Your task to perform on an android device: change the clock display to show seconds Image 0: 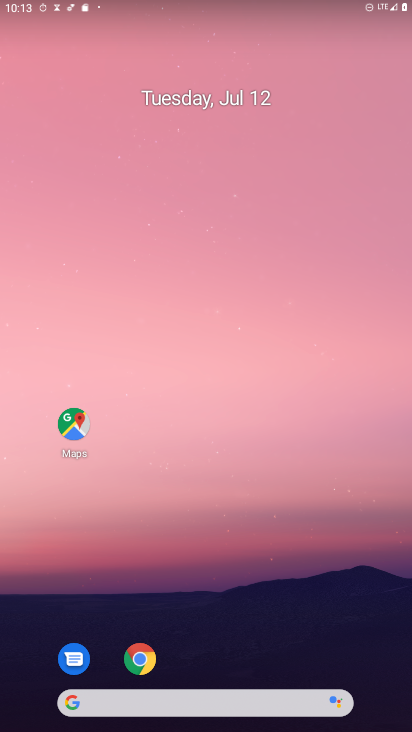
Step 0: drag from (194, 696) to (266, 67)
Your task to perform on an android device: change the clock display to show seconds Image 1: 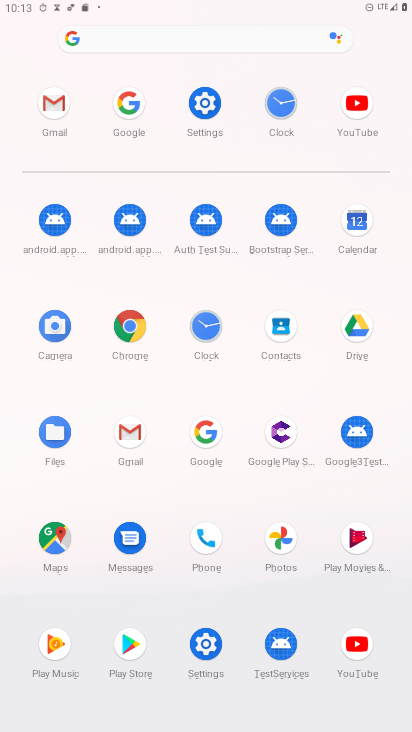
Step 1: click (281, 106)
Your task to perform on an android device: change the clock display to show seconds Image 2: 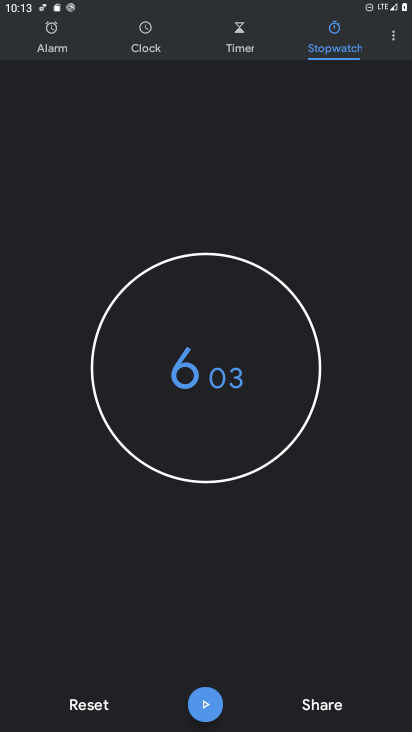
Step 2: click (396, 33)
Your task to perform on an android device: change the clock display to show seconds Image 3: 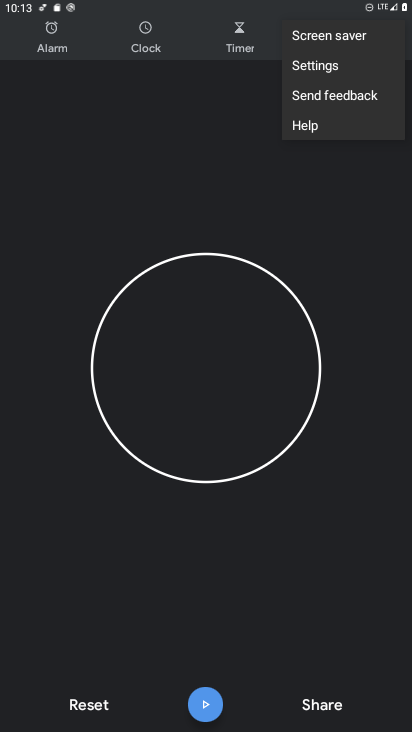
Step 3: click (334, 66)
Your task to perform on an android device: change the clock display to show seconds Image 4: 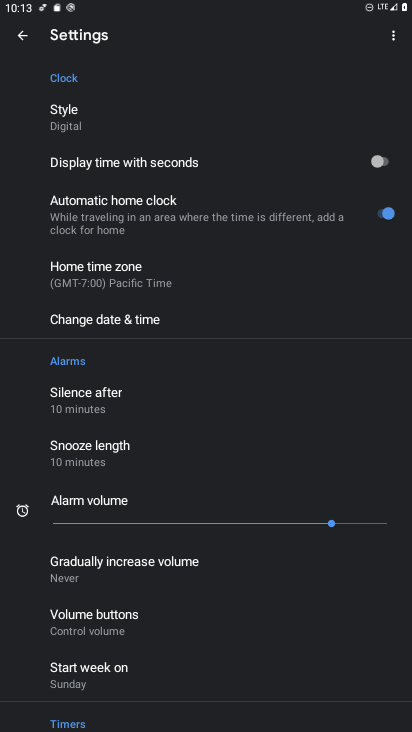
Step 4: click (378, 158)
Your task to perform on an android device: change the clock display to show seconds Image 5: 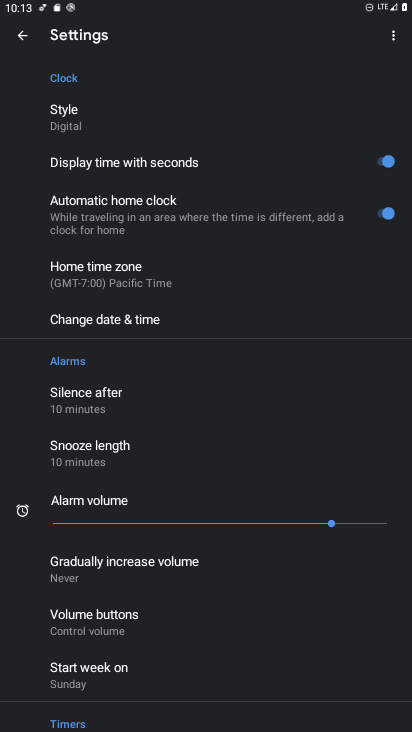
Step 5: task complete